Your task to perform on an android device: Empty the shopping cart on amazon. Add "macbook pro 15 inch" to the cart on amazon Image 0: 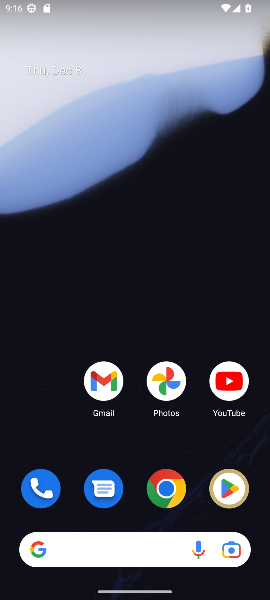
Step 0: press home button
Your task to perform on an android device: Empty the shopping cart on amazon. Add "macbook pro 15 inch" to the cart on amazon Image 1: 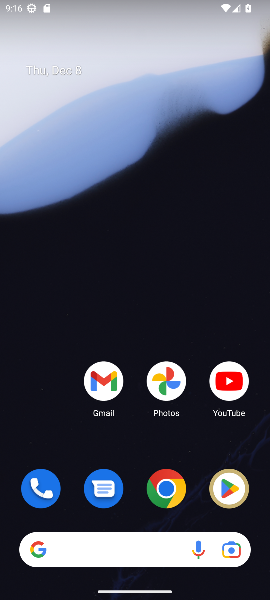
Step 1: drag from (128, 541) to (122, 76)
Your task to perform on an android device: Empty the shopping cart on amazon. Add "macbook pro 15 inch" to the cart on amazon Image 2: 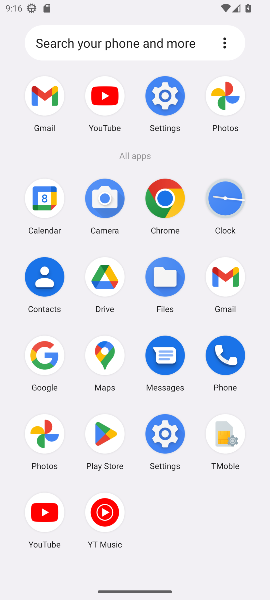
Step 2: click (45, 358)
Your task to perform on an android device: Empty the shopping cart on amazon. Add "macbook pro 15 inch" to the cart on amazon Image 3: 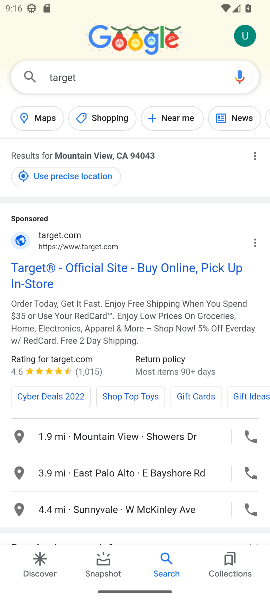
Step 3: click (81, 76)
Your task to perform on an android device: Empty the shopping cart on amazon. Add "macbook pro 15 inch" to the cart on amazon Image 4: 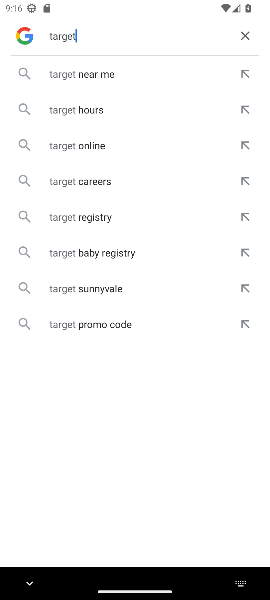
Step 4: click (246, 30)
Your task to perform on an android device: Empty the shopping cart on amazon. Add "macbook pro 15 inch" to the cart on amazon Image 5: 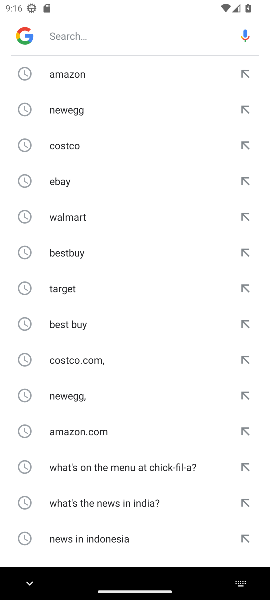
Step 5: click (57, 74)
Your task to perform on an android device: Empty the shopping cart on amazon. Add "macbook pro 15 inch" to the cart on amazon Image 6: 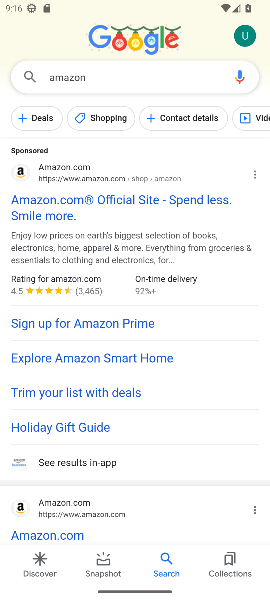
Step 6: click (84, 206)
Your task to perform on an android device: Empty the shopping cart on amazon. Add "macbook pro 15 inch" to the cart on amazon Image 7: 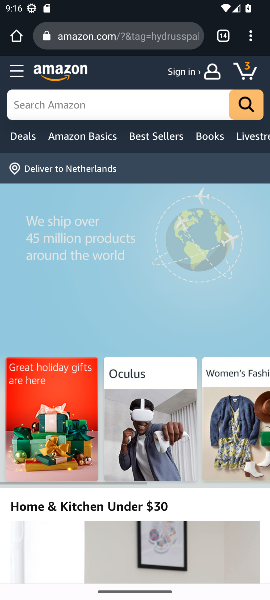
Step 7: click (244, 69)
Your task to perform on an android device: Empty the shopping cart on amazon. Add "macbook pro 15 inch" to the cart on amazon Image 8: 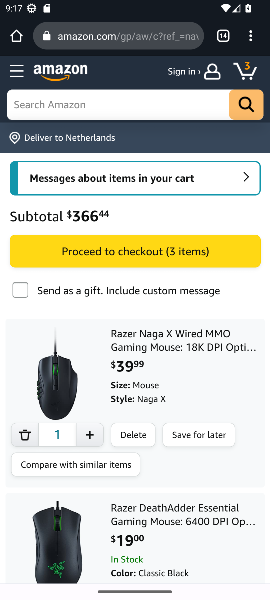
Step 8: click (131, 436)
Your task to perform on an android device: Empty the shopping cart on amazon. Add "macbook pro 15 inch" to the cart on amazon Image 9: 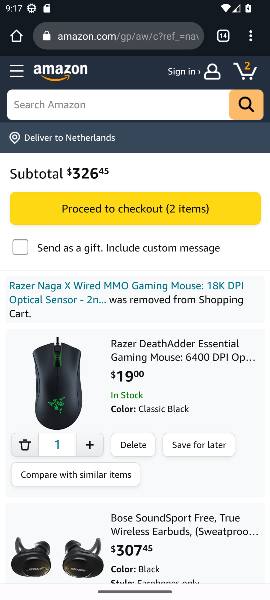
Step 9: click (135, 446)
Your task to perform on an android device: Empty the shopping cart on amazon. Add "macbook pro 15 inch" to the cart on amazon Image 10: 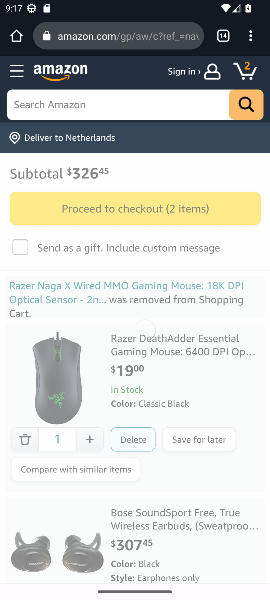
Step 10: click (133, 437)
Your task to perform on an android device: Empty the shopping cart on amazon. Add "macbook pro 15 inch" to the cart on amazon Image 11: 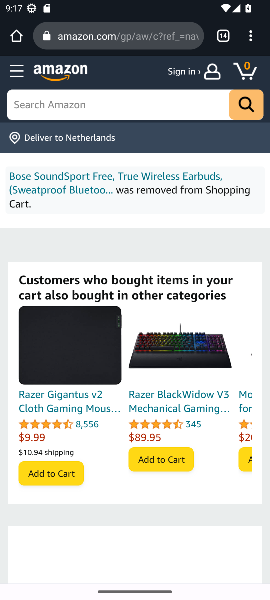
Step 11: drag from (140, 179) to (188, 467)
Your task to perform on an android device: Empty the shopping cart on amazon. Add "macbook pro 15 inch" to the cart on amazon Image 12: 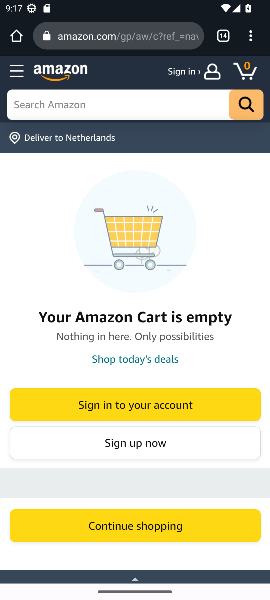
Step 12: click (78, 104)
Your task to perform on an android device: Empty the shopping cart on amazon. Add "macbook pro 15 inch" to the cart on amazon Image 13: 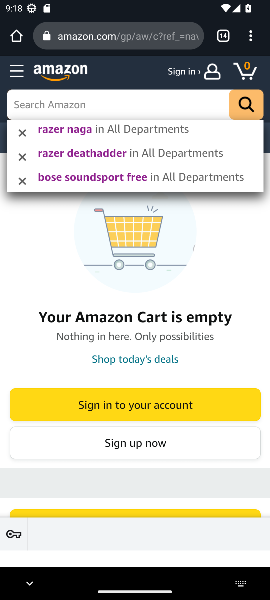
Step 13: type "macbook pro 15 inch"
Your task to perform on an android device: Empty the shopping cart on amazon. Add "macbook pro 15 inch" to the cart on amazon Image 14: 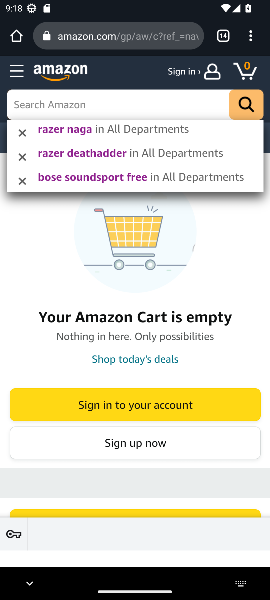
Step 14: click (245, 103)
Your task to perform on an android device: Empty the shopping cart on amazon. Add "macbook pro 15 inch" to the cart on amazon Image 15: 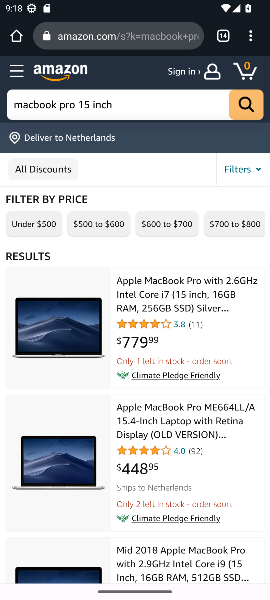
Step 15: click (146, 301)
Your task to perform on an android device: Empty the shopping cart on amazon. Add "macbook pro 15 inch" to the cart on amazon Image 16: 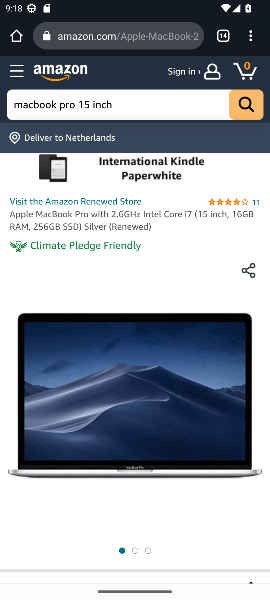
Step 16: task complete